Your task to perform on an android device: delete a single message in the gmail app Image 0: 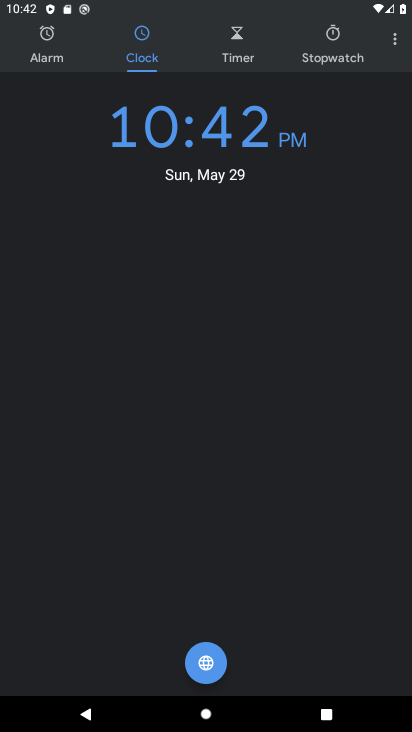
Step 0: press home button
Your task to perform on an android device: delete a single message in the gmail app Image 1: 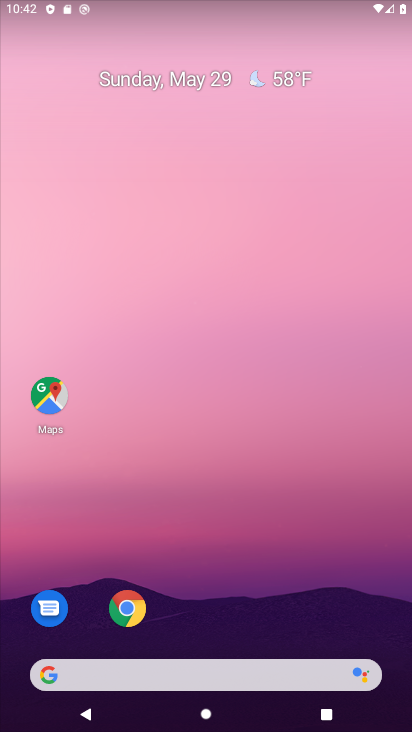
Step 1: drag from (233, 619) to (232, 286)
Your task to perform on an android device: delete a single message in the gmail app Image 2: 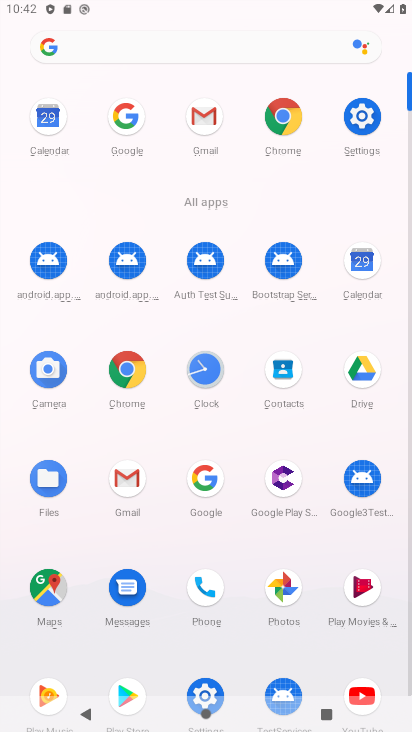
Step 2: click (201, 120)
Your task to perform on an android device: delete a single message in the gmail app Image 3: 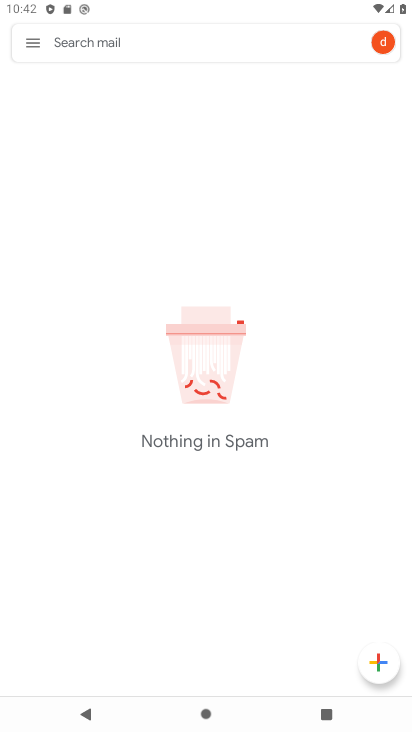
Step 3: click (26, 44)
Your task to perform on an android device: delete a single message in the gmail app Image 4: 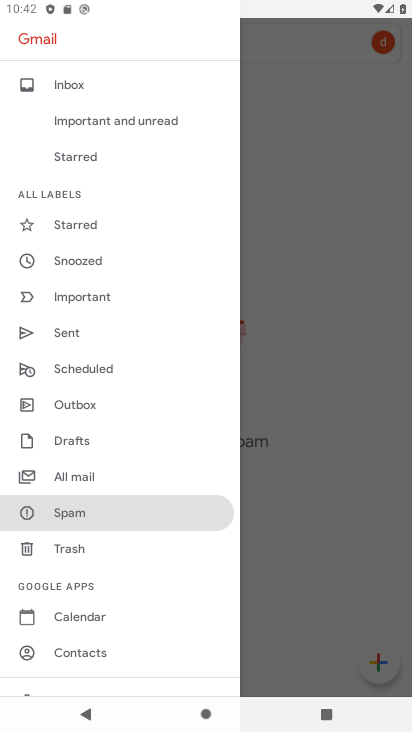
Step 4: click (77, 93)
Your task to perform on an android device: delete a single message in the gmail app Image 5: 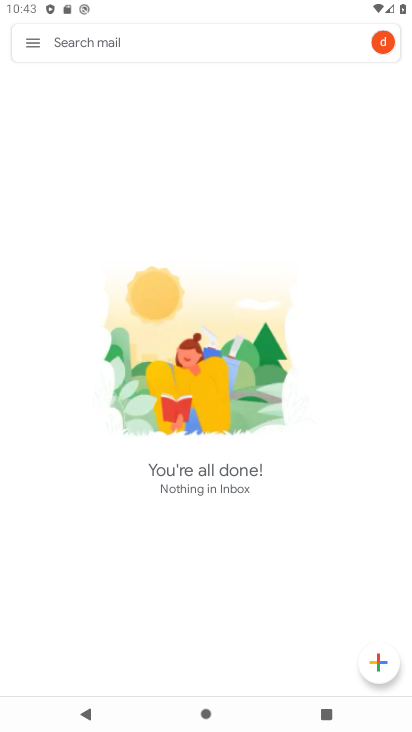
Step 5: task complete